Your task to perform on an android device: Open the stopwatch Image 0: 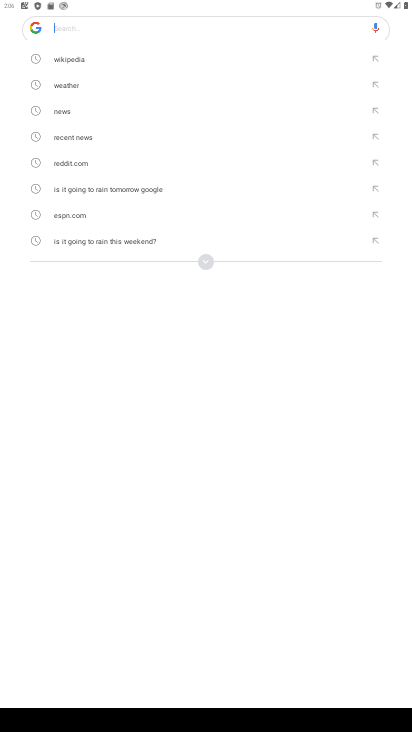
Step 0: press home button
Your task to perform on an android device: Open the stopwatch Image 1: 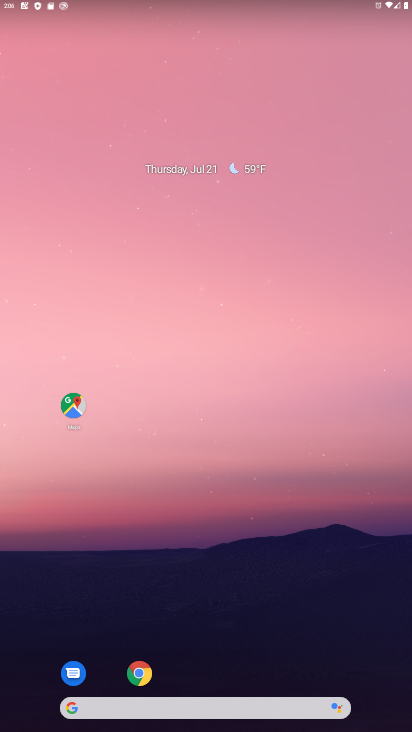
Step 1: drag from (220, 706) to (271, 174)
Your task to perform on an android device: Open the stopwatch Image 2: 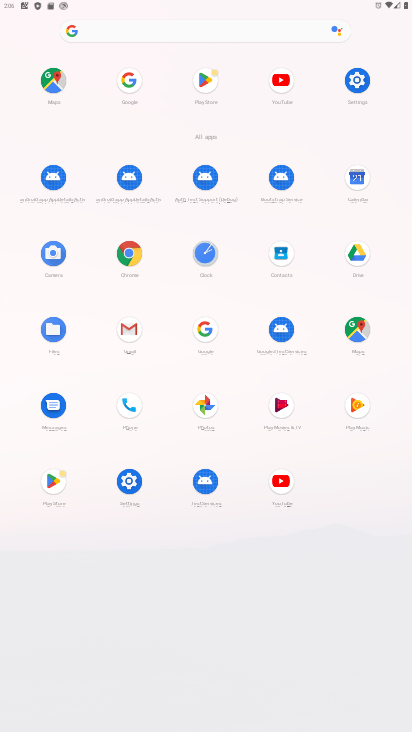
Step 2: click (204, 252)
Your task to perform on an android device: Open the stopwatch Image 3: 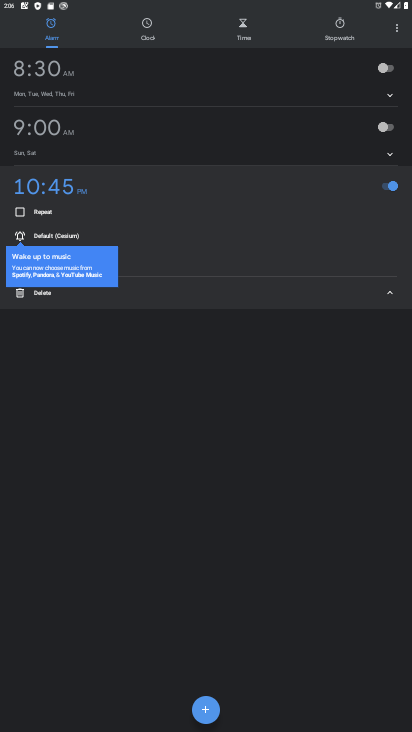
Step 3: click (343, 24)
Your task to perform on an android device: Open the stopwatch Image 4: 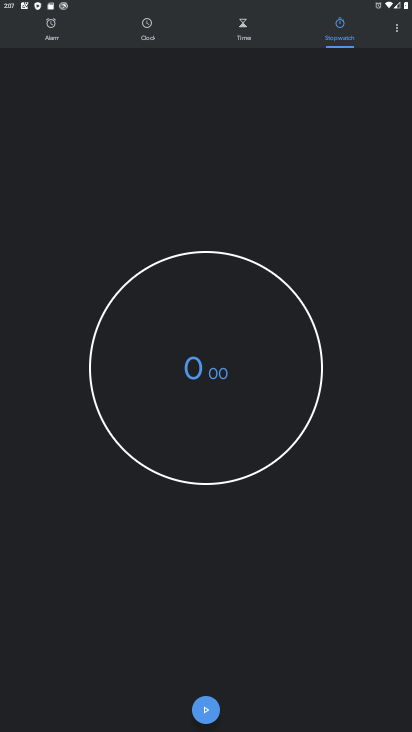
Step 4: task complete